Your task to perform on an android device: Open settings on Google Maps Image 0: 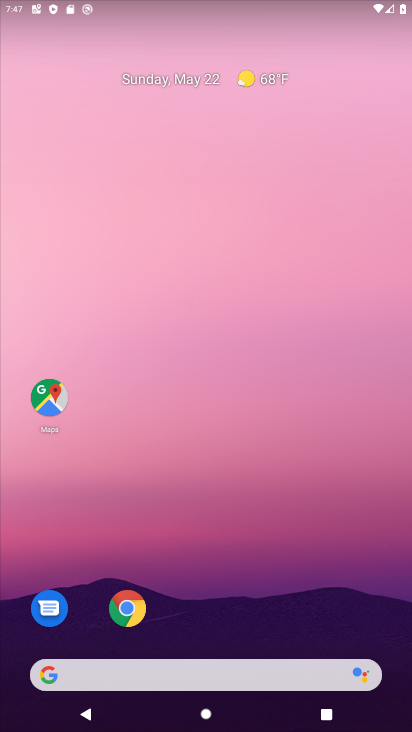
Step 0: drag from (226, 726) to (233, 180)
Your task to perform on an android device: Open settings on Google Maps Image 1: 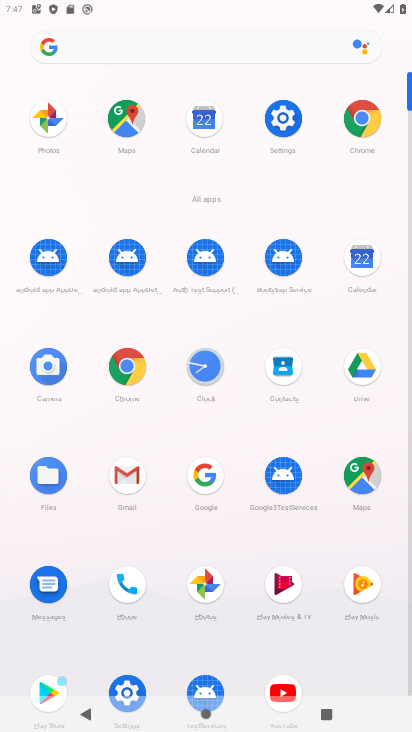
Step 1: click (357, 476)
Your task to perform on an android device: Open settings on Google Maps Image 2: 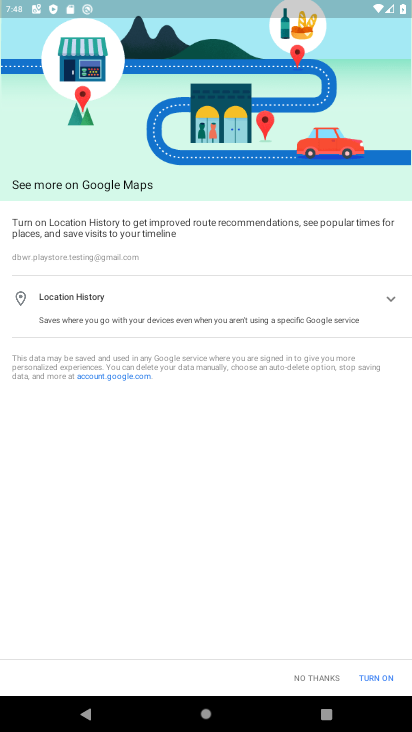
Step 2: click (322, 676)
Your task to perform on an android device: Open settings on Google Maps Image 3: 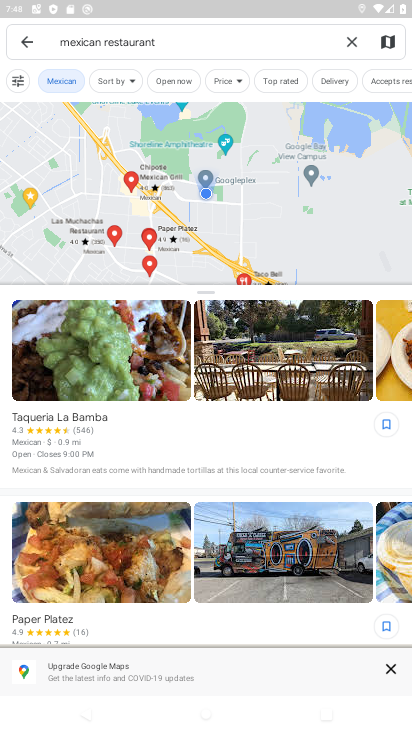
Step 3: click (33, 36)
Your task to perform on an android device: Open settings on Google Maps Image 4: 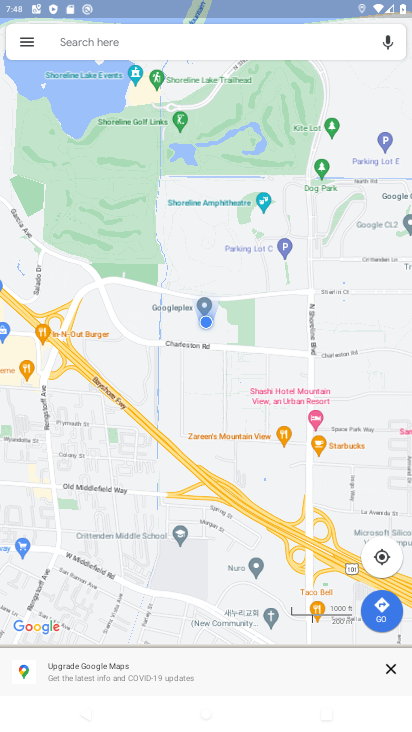
Step 4: click (29, 42)
Your task to perform on an android device: Open settings on Google Maps Image 5: 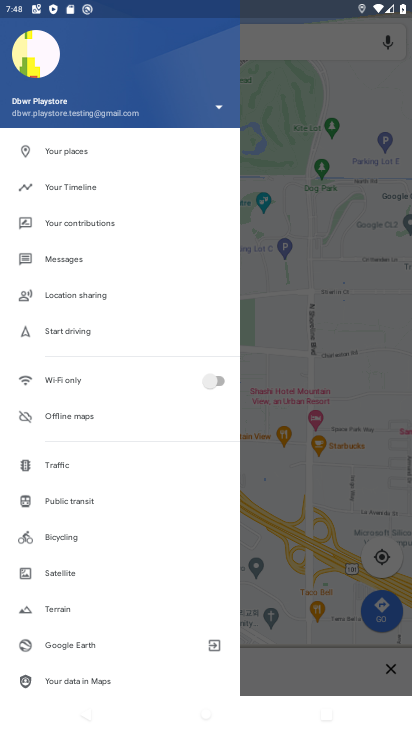
Step 5: drag from (62, 667) to (60, 343)
Your task to perform on an android device: Open settings on Google Maps Image 6: 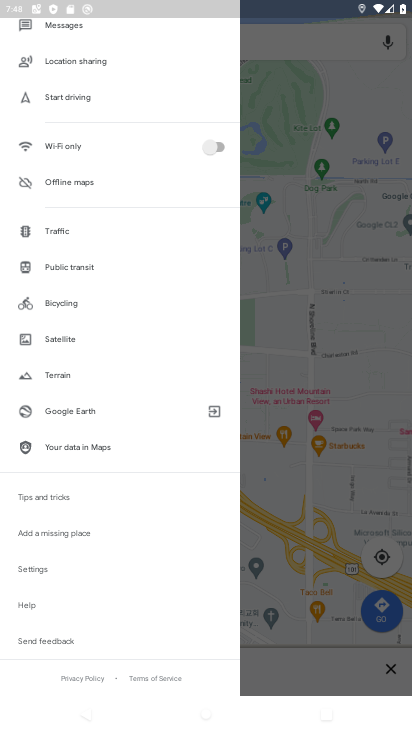
Step 6: click (34, 568)
Your task to perform on an android device: Open settings on Google Maps Image 7: 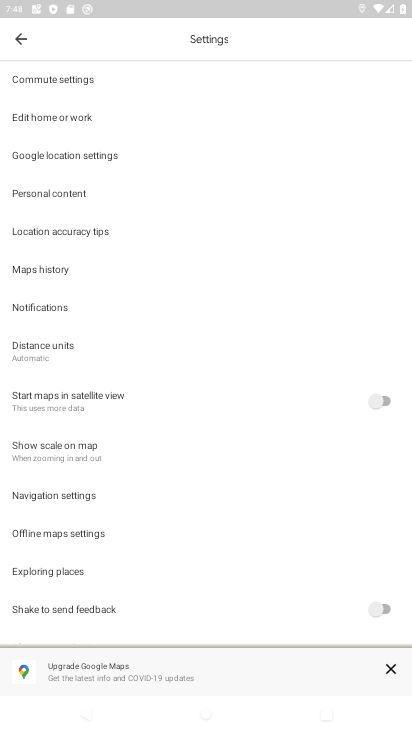
Step 7: task complete